Your task to perform on an android device: Is it going to rain tomorrow? Image 0: 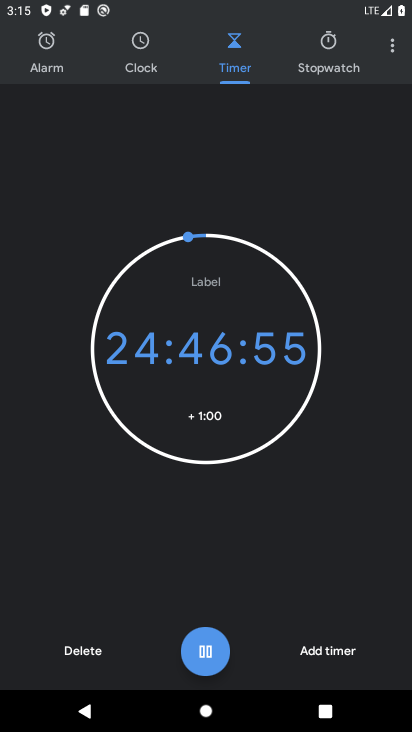
Step 0: press home button
Your task to perform on an android device: Is it going to rain tomorrow? Image 1: 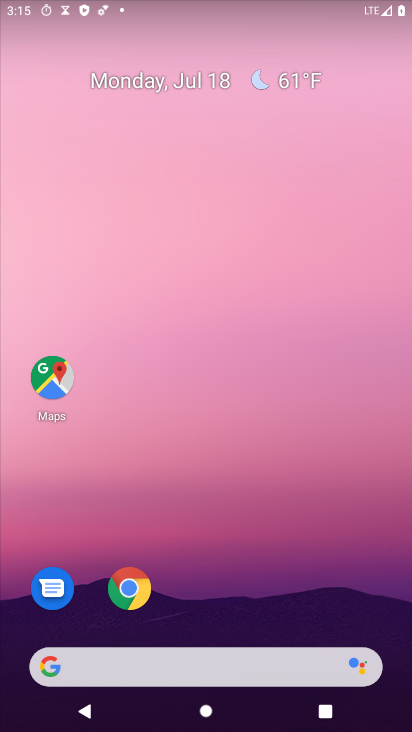
Step 1: drag from (266, 555) to (309, 37)
Your task to perform on an android device: Is it going to rain tomorrow? Image 2: 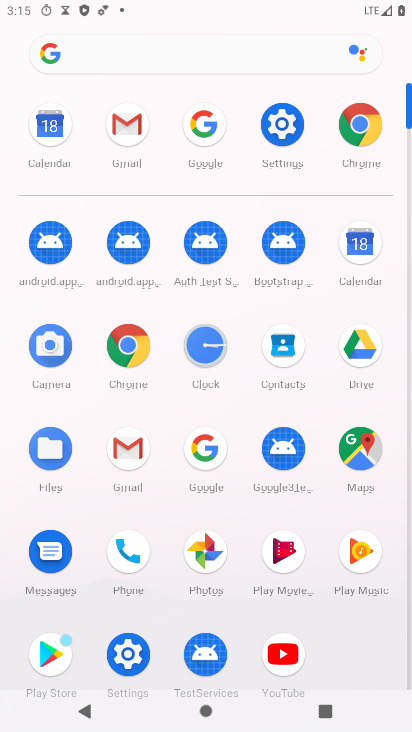
Step 2: click (205, 448)
Your task to perform on an android device: Is it going to rain tomorrow? Image 3: 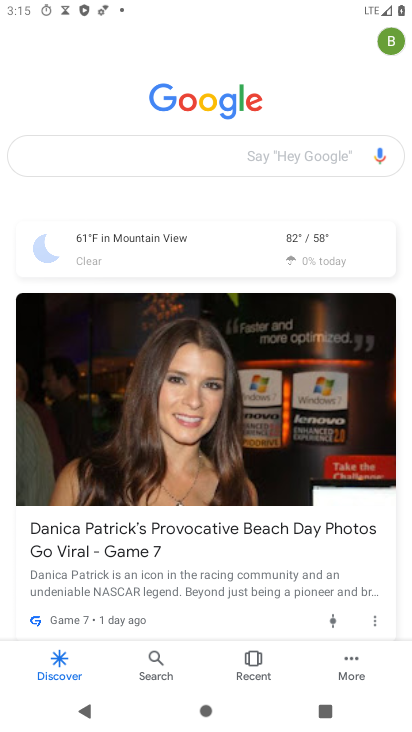
Step 3: click (145, 241)
Your task to perform on an android device: Is it going to rain tomorrow? Image 4: 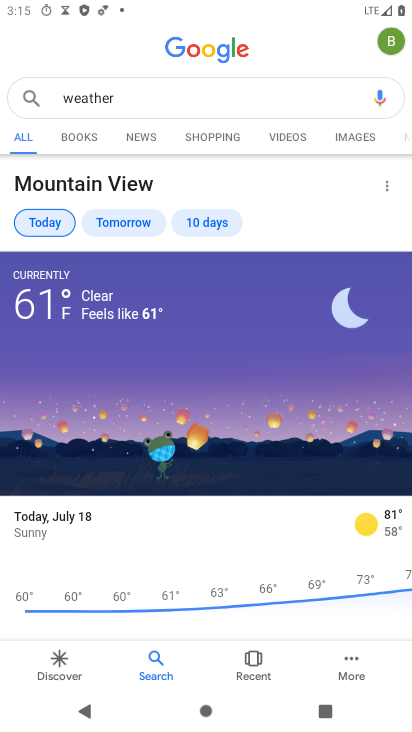
Step 4: click (110, 220)
Your task to perform on an android device: Is it going to rain tomorrow? Image 5: 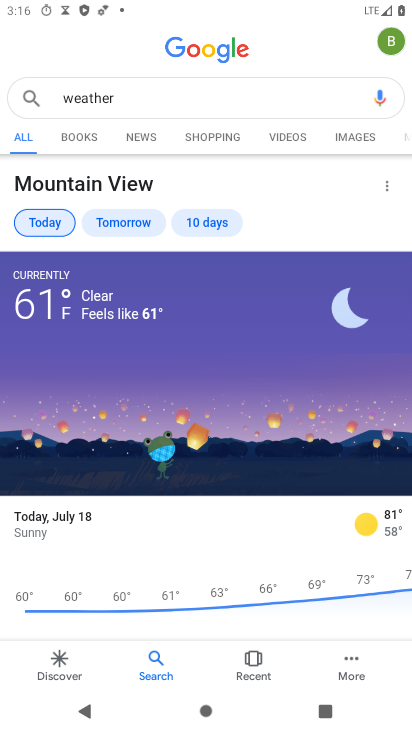
Step 5: click (143, 218)
Your task to perform on an android device: Is it going to rain tomorrow? Image 6: 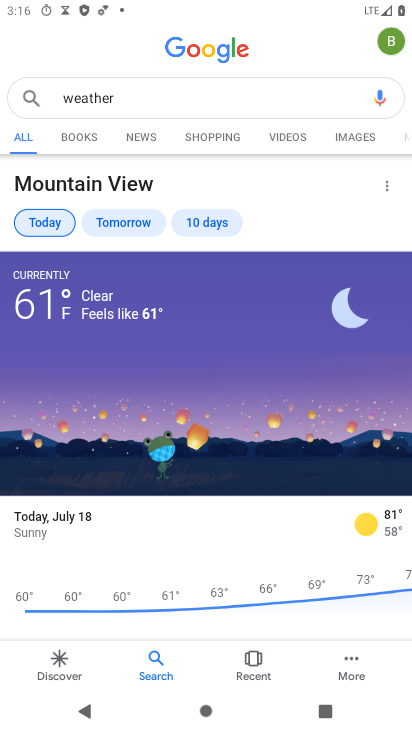
Step 6: click (142, 219)
Your task to perform on an android device: Is it going to rain tomorrow? Image 7: 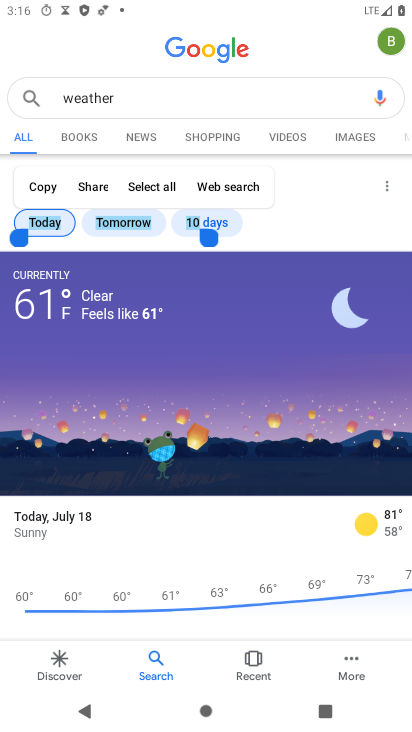
Step 7: click (147, 223)
Your task to perform on an android device: Is it going to rain tomorrow? Image 8: 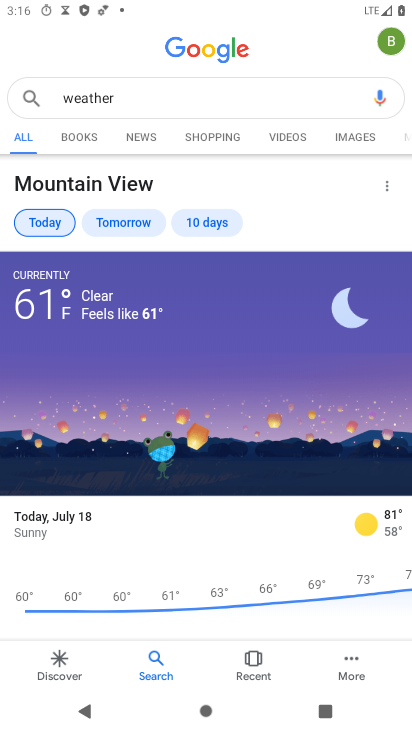
Step 8: click (127, 226)
Your task to perform on an android device: Is it going to rain tomorrow? Image 9: 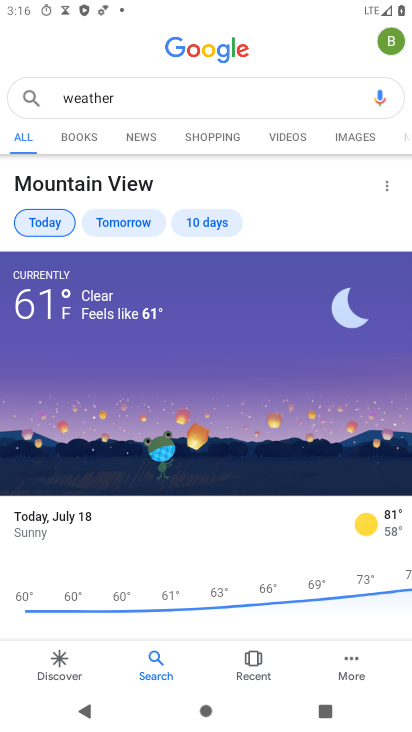
Step 9: task complete